Your task to perform on an android device: open a new tab in the chrome app Image 0: 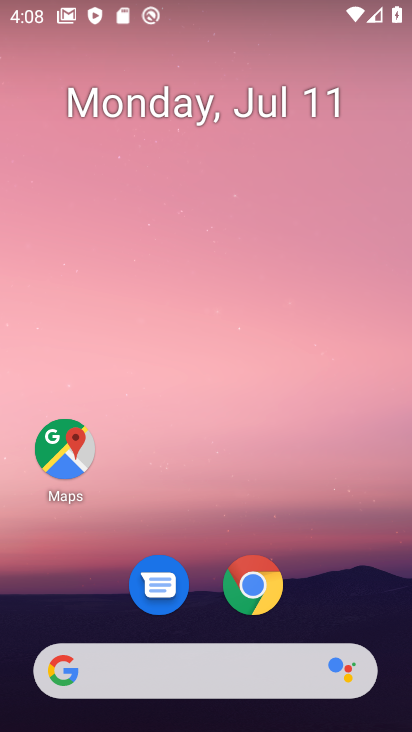
Step 0: click (254, 584)
Your task to perform on an android device: open a new tab in the chrome app Image 1: 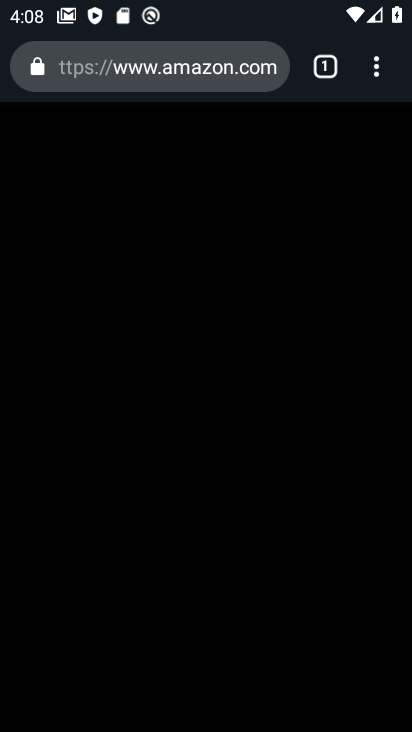
Step 1: click (374, 75)
Your task to perform on an android device: open a new tab in the chrome app Image 2: 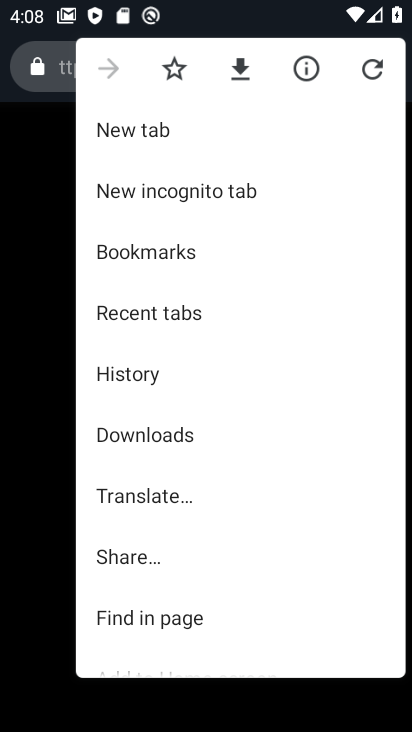
Step 2: click (169, 122)
Your task to perform on an android device: open a new tab in the chrome app Image 3: 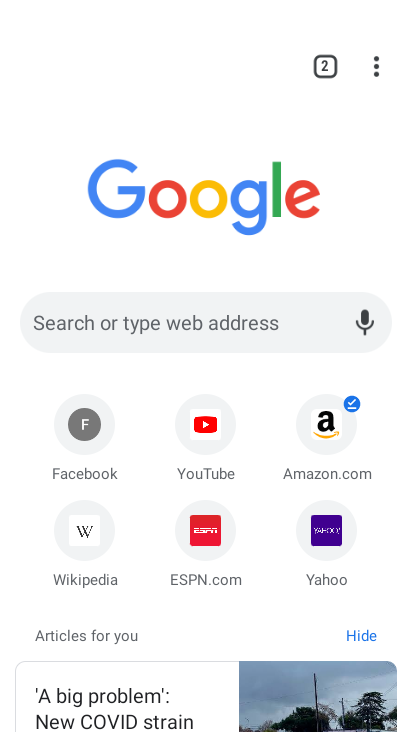
Step 3: task complete